Your task to perform on an android device: When is my next meeting? Image 0: 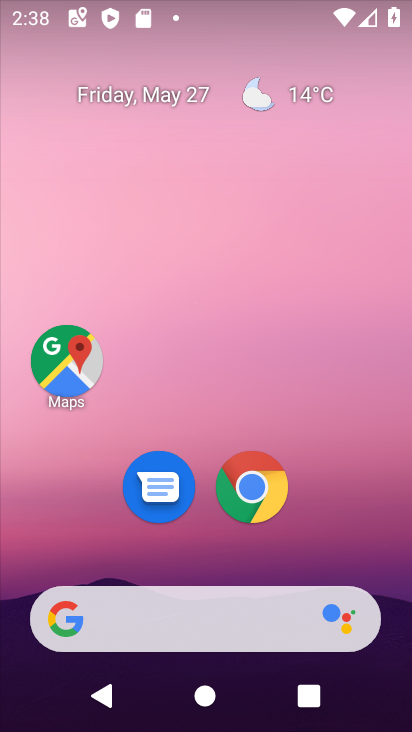
Step 0: drag from (341, 495) to (387, 106)
Your task to perform on an android device: When is my next meeting? Image 1: 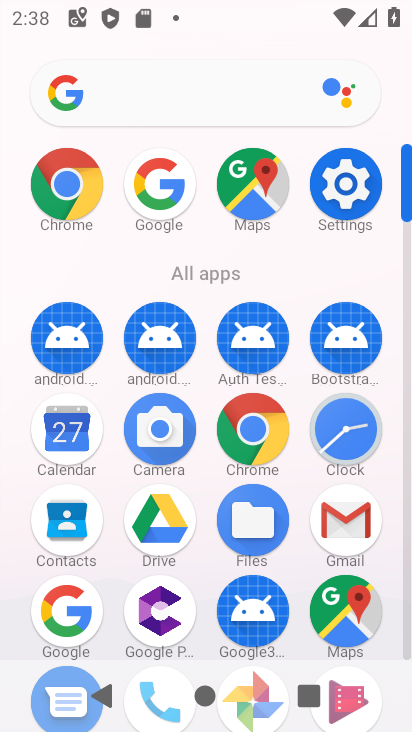
Step 1: click (61, 518)
Your task to perform on an android device: When is my next meeting? Image 2: 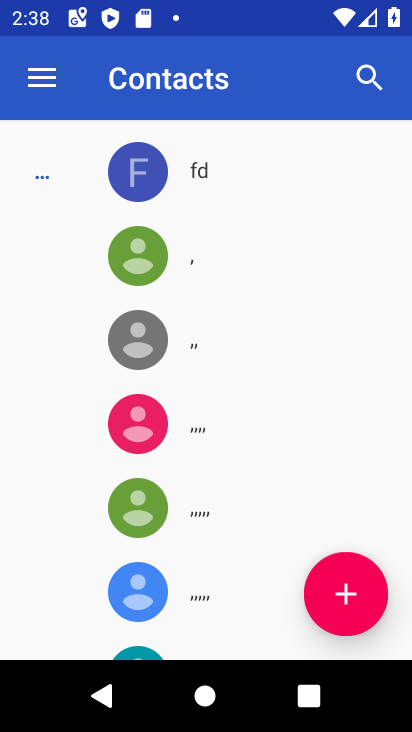
Step 2: press back button
Your task to perform on an android device: When is my next meeting? Image 3: 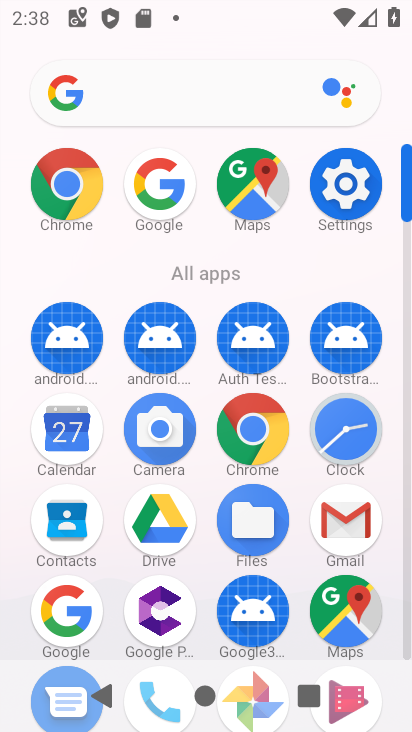
Step 3: click (58, 429)
Your task to perform on an android device: When is my next meeting? Image 4: 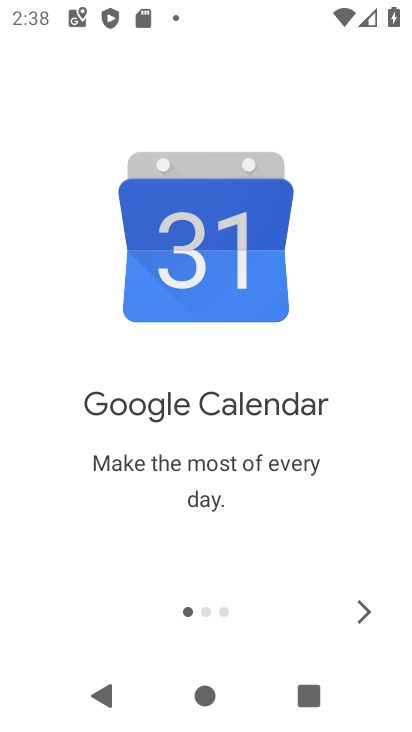
Step 4: click (371, 612)
Your task to perform on an android device: When is my next meeting? Image 5: 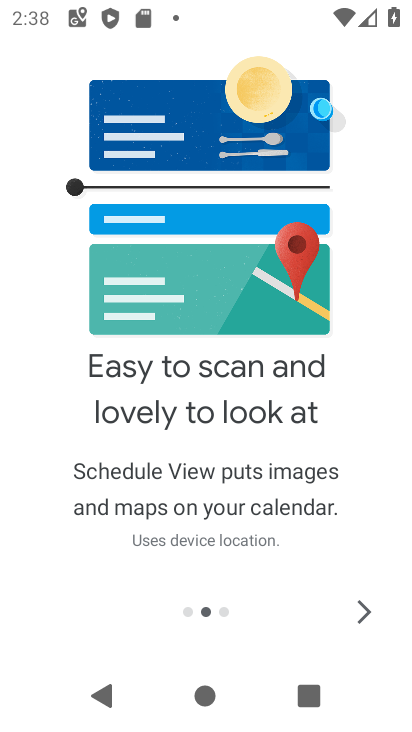
Step 5: click (371, 612)
Your task to perform on an android device: When is my next meeting? Image 6: 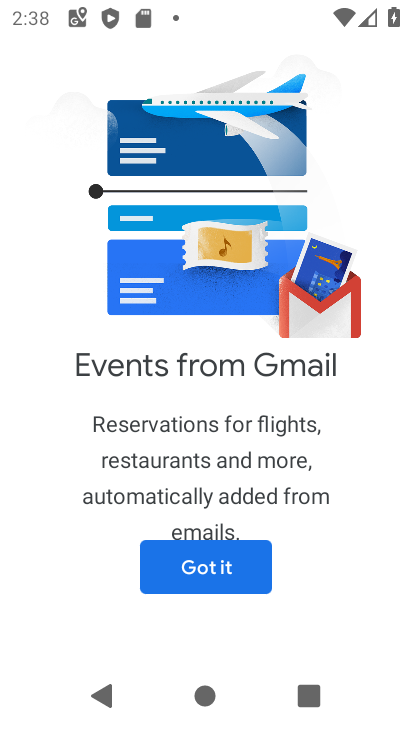
Step 6: click (371, 612)
Your task to perform on an android device: When is my next meeting? Image 7: 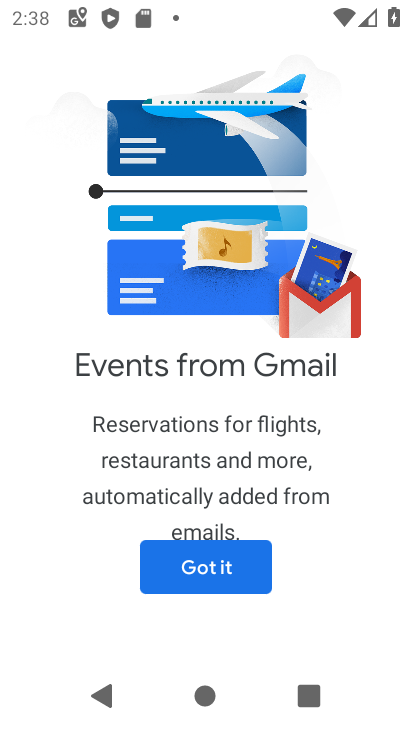
Step 7: click (260, 572)
Your task to perform on an android device: When is my next meeting? Image 8: 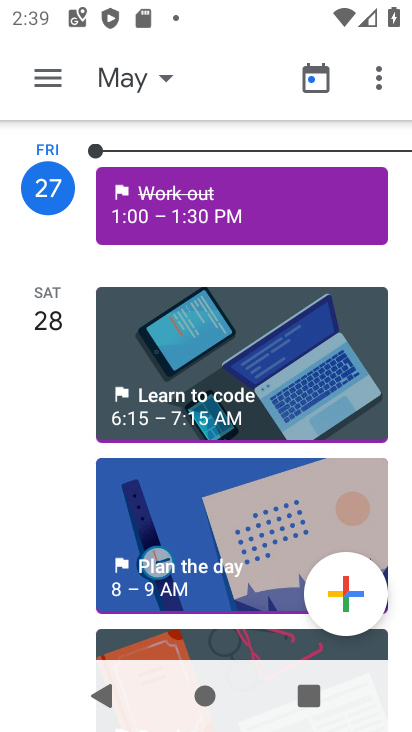
Step 8: task complete